Your task to perform on an android device: toggle sleep mode Image 0: 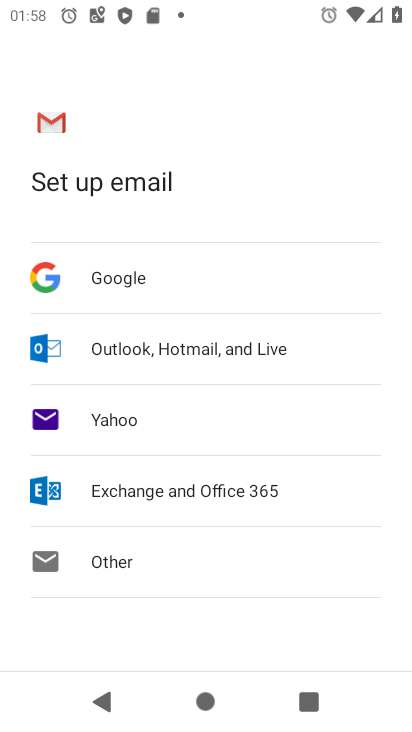
Step 0: press home button
Your task to perform on an android device: toggle sleep mode Image 1: 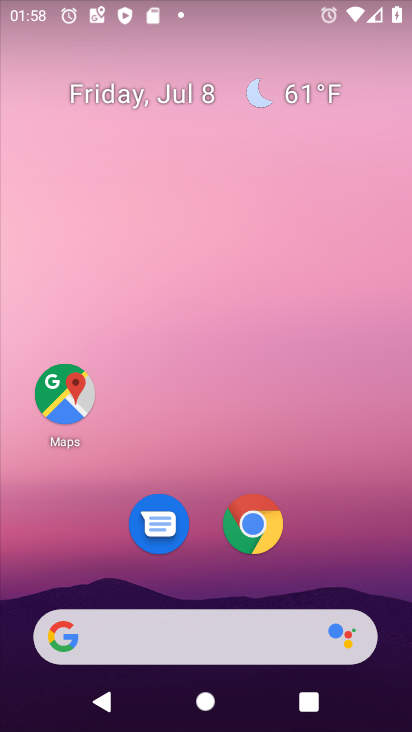
Step 1: drag from (316, 558) to (344, 15)
Your task to perform on an android device: toggle sleep mode Image 2: 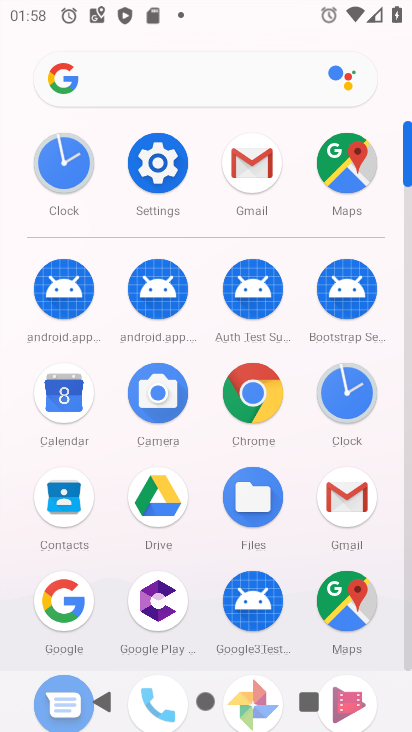
Step 2: click (164, 154)
Your task to perform on an android device: toggle sleep mode Image 3: 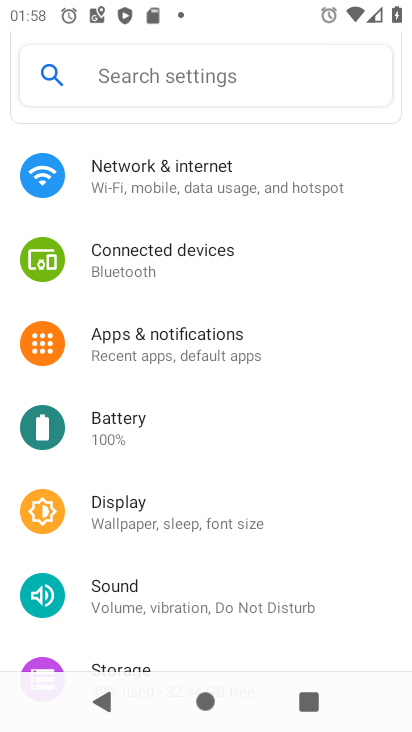
Step 3: click (152, 520)
Your task to perform on an android device: toggle sleep mode Image 4: 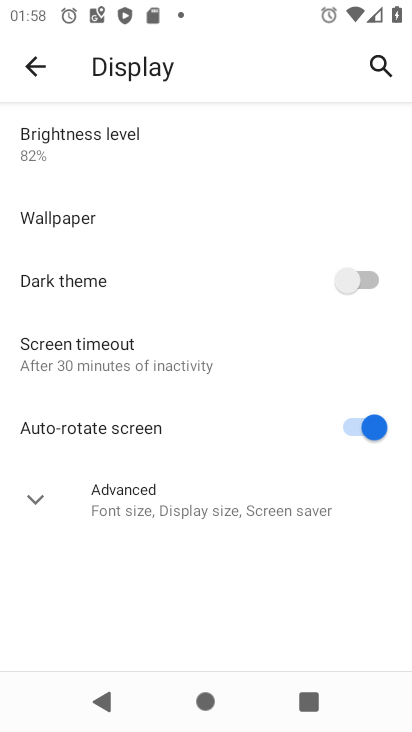
Step 4: click (32, 495)
Your task to perform on an android device: toggle sleep mode Image 5: 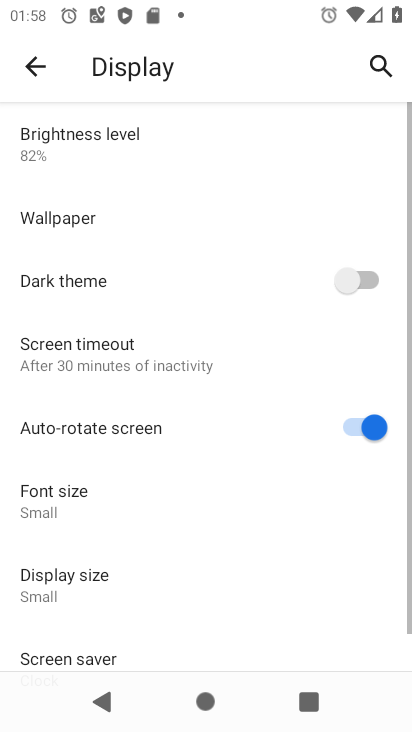
Step 5: drag from (181, 576) to (215, 284)
Your task to perform on an android device: toggle sleep mode Image 6: 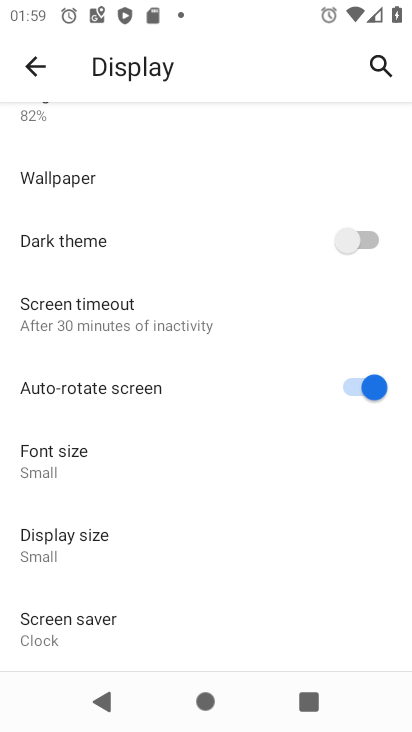
Step 6: drag from (213, 287) to (211, 575)
Your task to perform on an android device: toggle sleep mode Image 7: 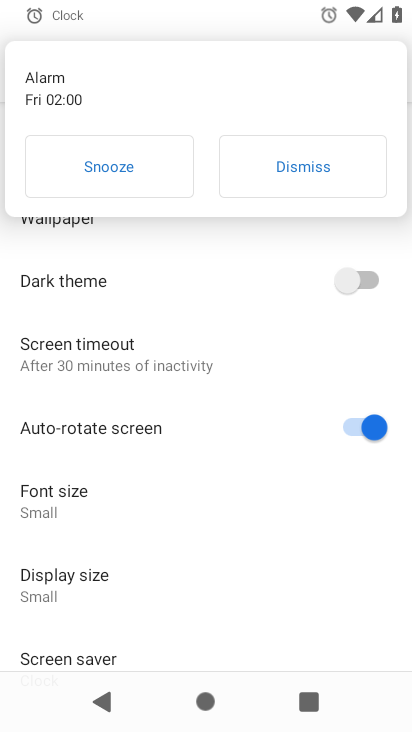
Step 7: click (344, 180)
Your task to perform on an android device: toggle sleep mode Image 8: 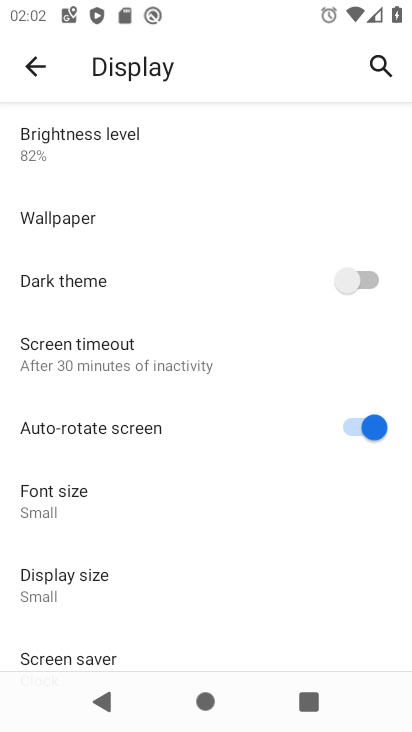
Step 8: task complete